Your task to perform on an android device: Go to privacy settings Image 0: 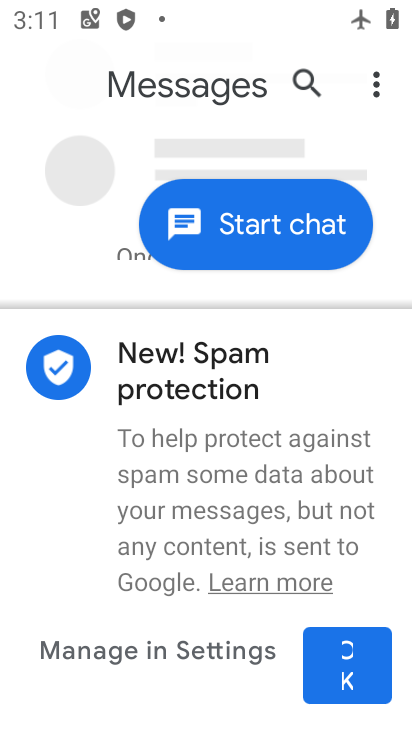
Step 0: press home button
Your task to perform on an android device: Go to privacy settings Image 1: 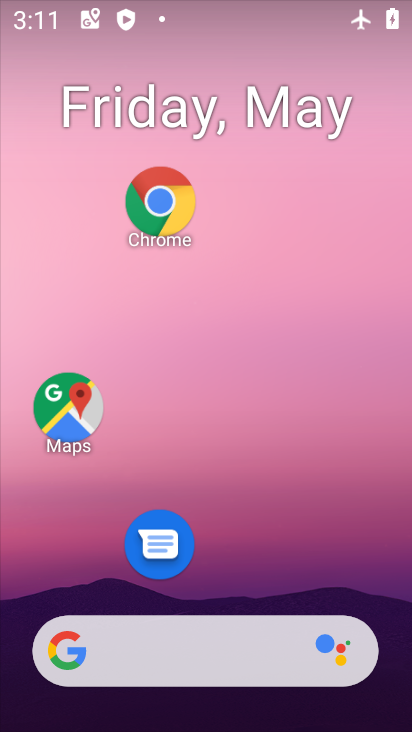
Step 1: drag from (326, 545) to (276, 152)
Your task to perform on an android device: Go to privacy settings Image 2: 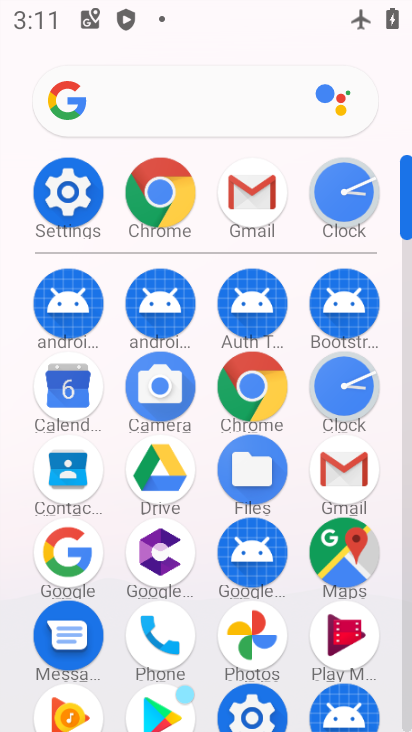
Step 2: click (64, 199)
Your task to perform on an android device: Go to privacy settings Image 3: 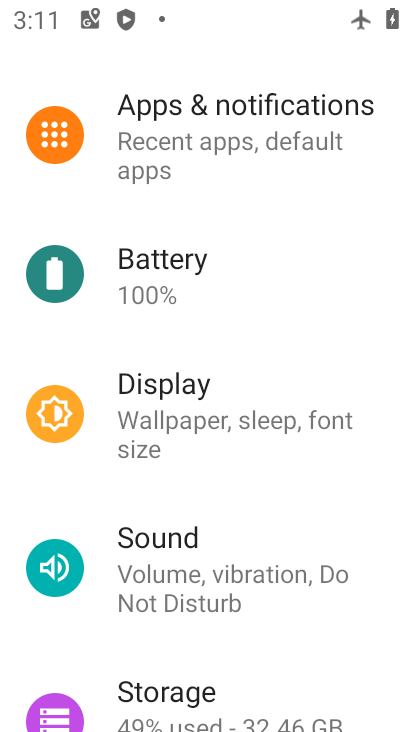
Step 3: drag from (214, 558) to (314, 282)
Your task to perform on an android device: Go to privacy settings Image 4: 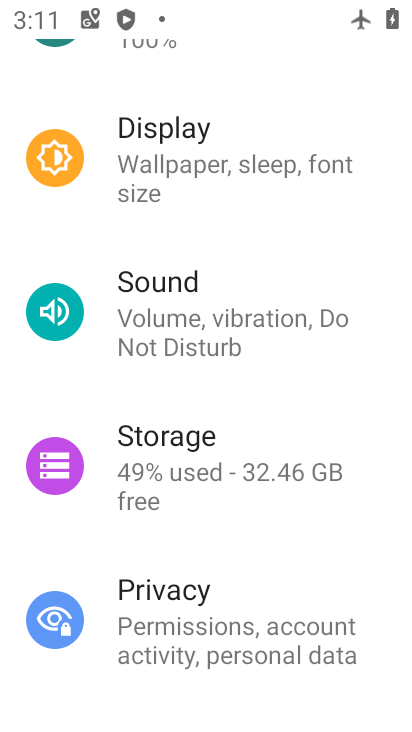
Step 4: click (196, 614)
Your task to perform on an android device: Go to privacy settings Image 5: 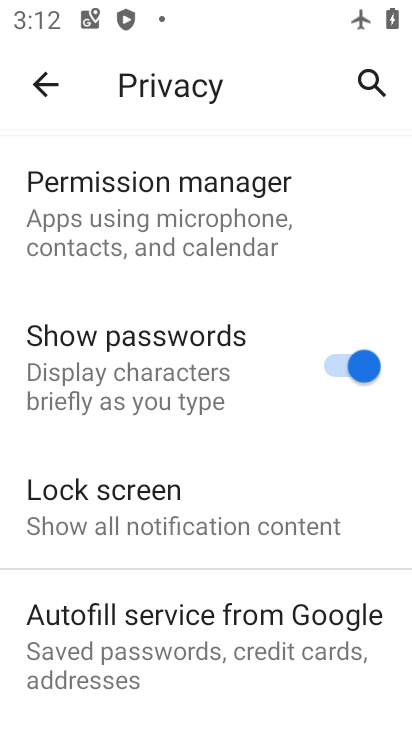
Step 5: drag from (219, 614) to (263, 279)
Your task to perform on an android device: Go to privacy settings Image 6: 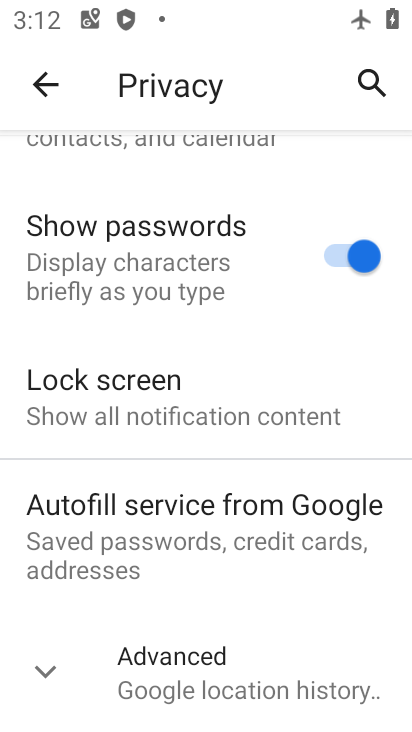
Step 6: click (223, 685)
Your task to perform on an android device: Go to privacy settings Image 7: 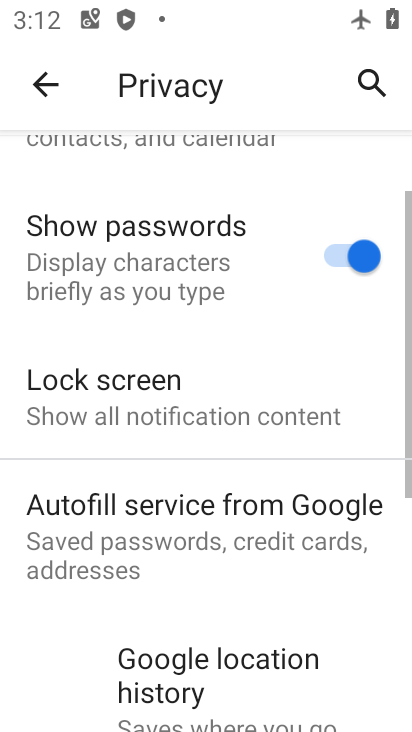
Step 7: task complete